Your task to perform on an android device: Go to eBay Image 0: 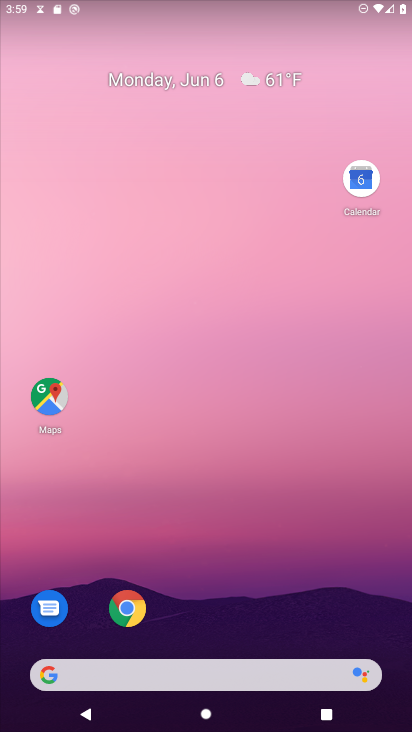
Step 0: click (125, 610)
Your task to perform on an android device: Go to eBay Image 1: 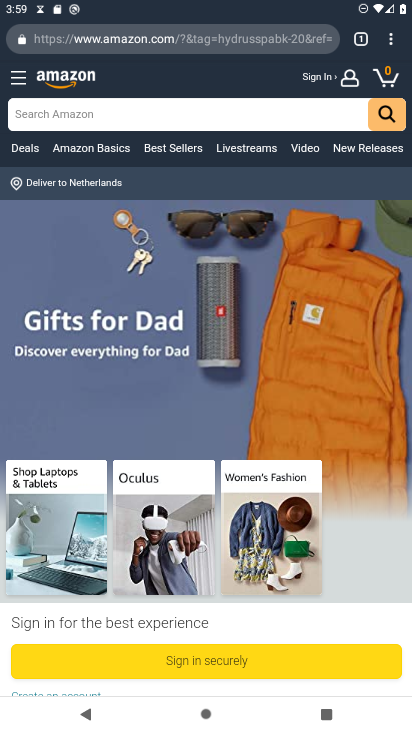
Step 1: click (132, 35)
Your task to perform on an android device: Go to eBay Image 2: 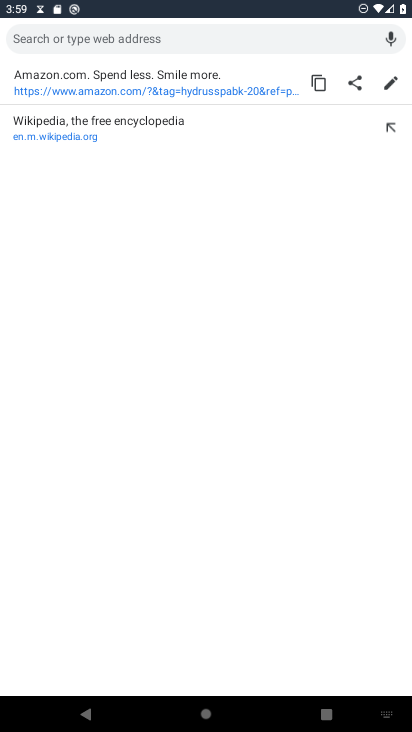
Step 2: type "ebay"
Your task to perform on an android device: Go to eBay Image 3: 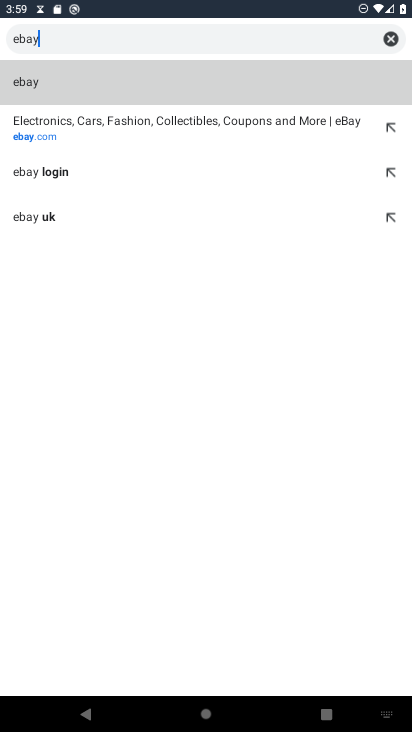
Step 3: click (34, 83)
Your task to perform on an android device: Go to eBay Image 4: 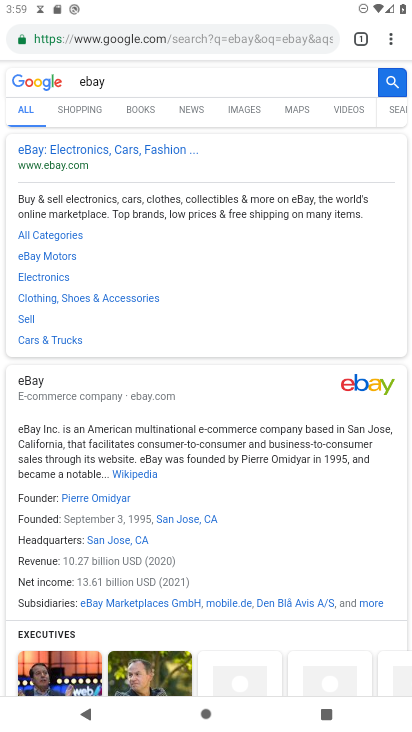
Step 4: click (22, 153)
Your task to perform on an android device: Go to eBay Image 5: 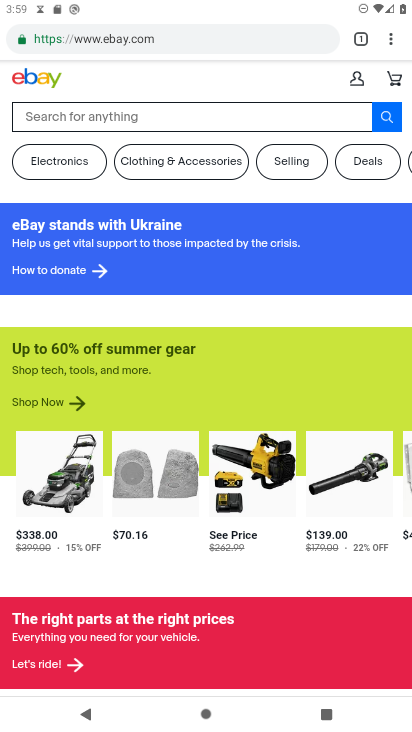
Step 5: task complete